Your task to perform on an android device: Search for pizza restaurants on Maps Image 0: 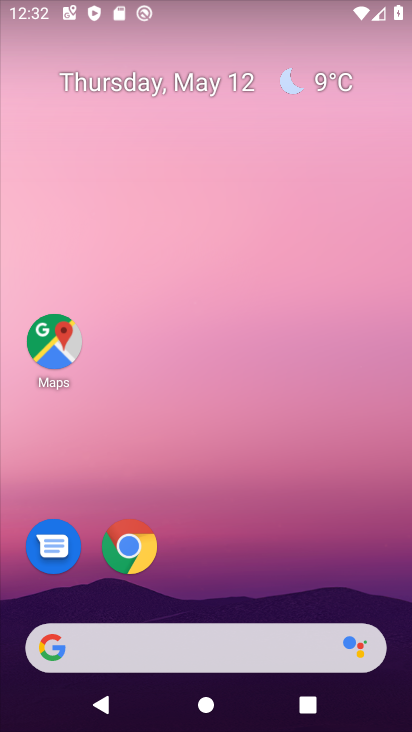
Step 0: click (61, 351)
Your task to perform on an android device: Search for pizza restaurants on Maps Image 1: 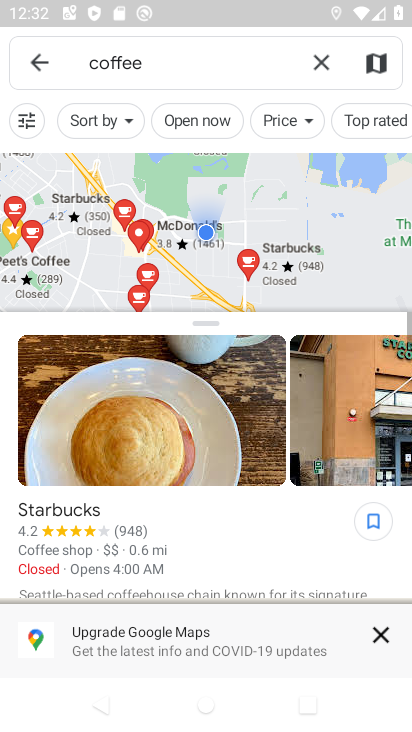
Step 1: click (325, 60)
Your task to perform on an android device: Search for pizza restaurants on Maps Image 2: 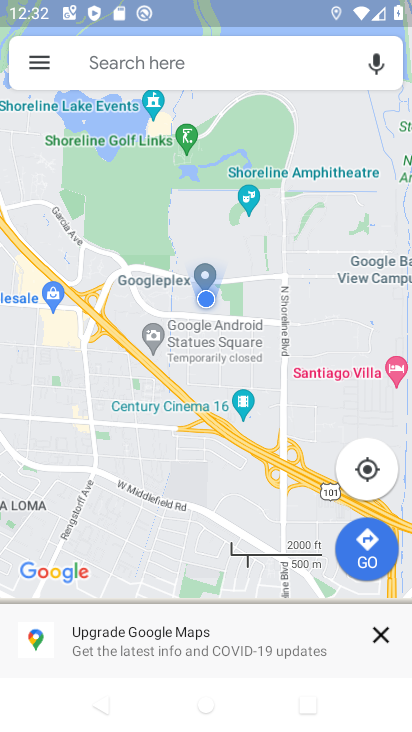
Step 2: click (226, 66)
Your task to perform on an android device: Search for pizza restaurants on Maps Image 3: 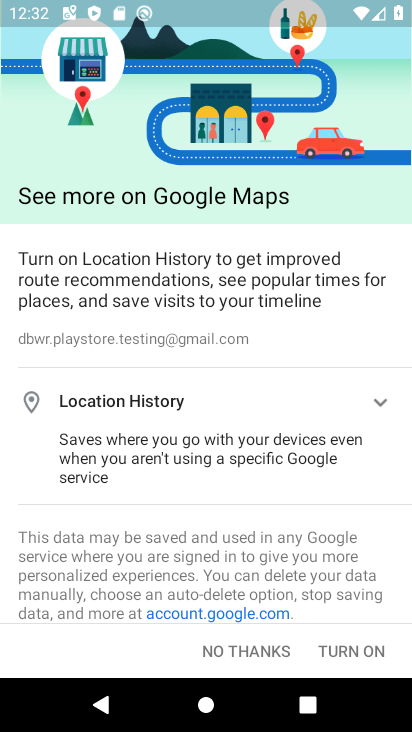
Step 3: press back button
Your task to perform on an android device: Search for pizza restaurants on Maps Image 4: 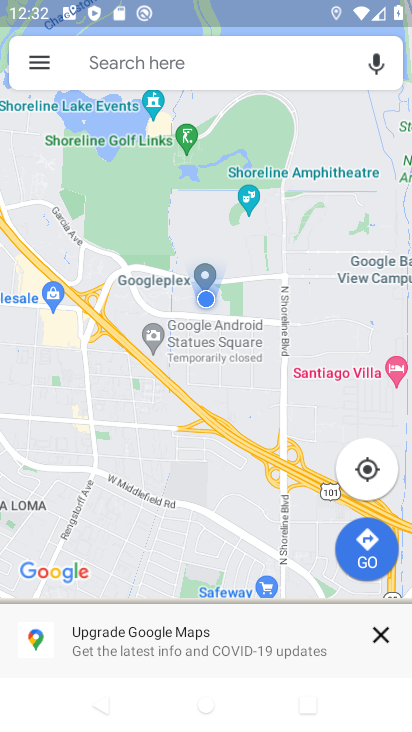
Step 4: click (247, 75)
Your task to perform on an android device: Search for pizza restaurants on Maps Image 5: 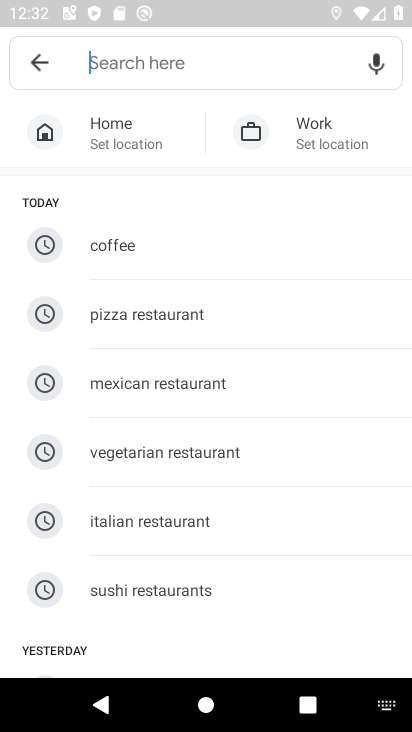
Step 5: click (189, 311)
Your task to perform on an android device: Search for pizza restaurants on Maps Image 6: 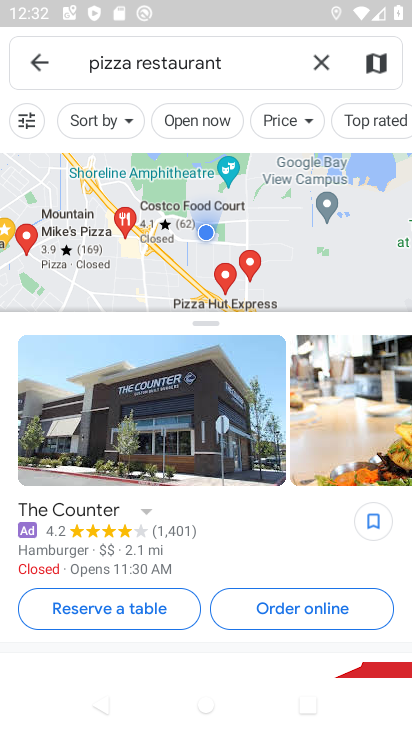
Step 6: task complete